Your task to perform on an android device: Search for Mexican restaurants on Maps Image 0: 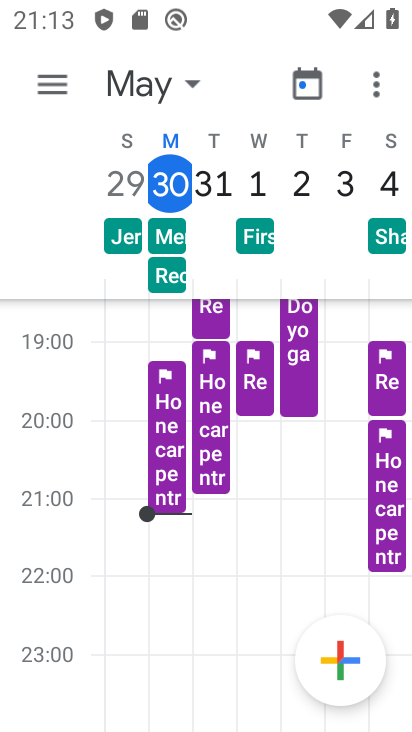
Step 0: press back button
Your task to perform on an android device: Search for Mexican restaurants on Maps Image 1: 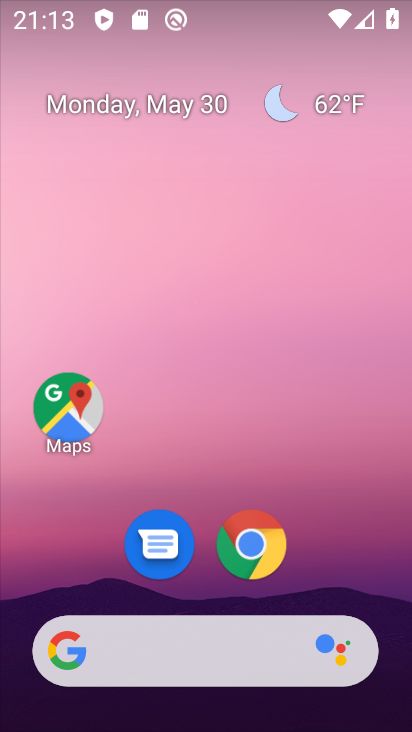
Step 1: click (67, 410)
Your task to perform on an android device: Search for Mexican restaurants on Maps Image 2: 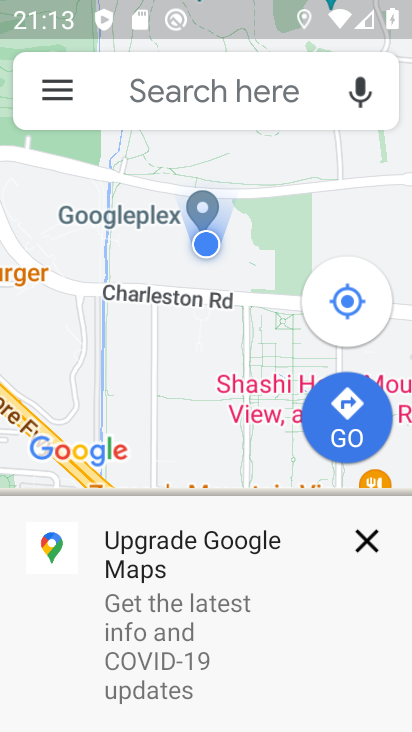
Step 2: click (208, 78)
Your task to perform on an android device: Search for Mexican restaurants on Maps Image 3: 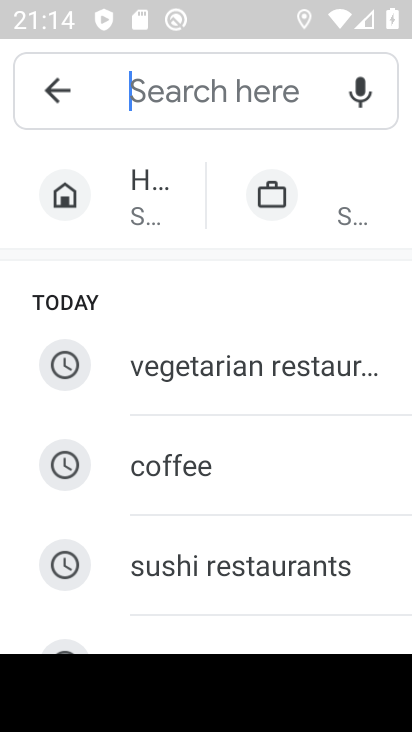
Step 3: type "Mexican restaurants"
Your task to perform on an android device: Search for Mexican restaurants on Maps Image 4: 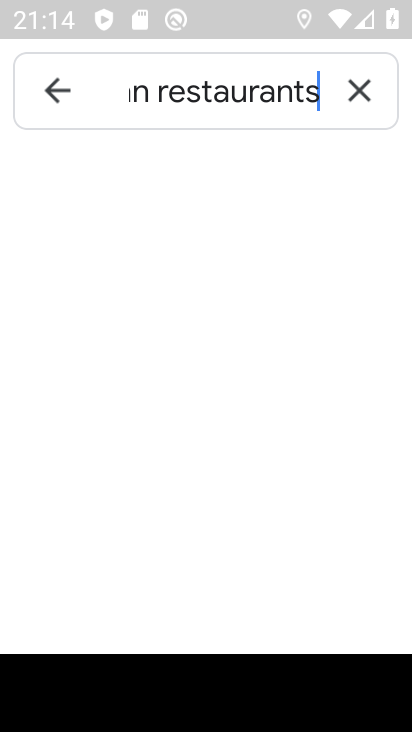
Step 4: type ""
Your task to perform on an android device: Search for Mexican restaurants on Maps Image 5: 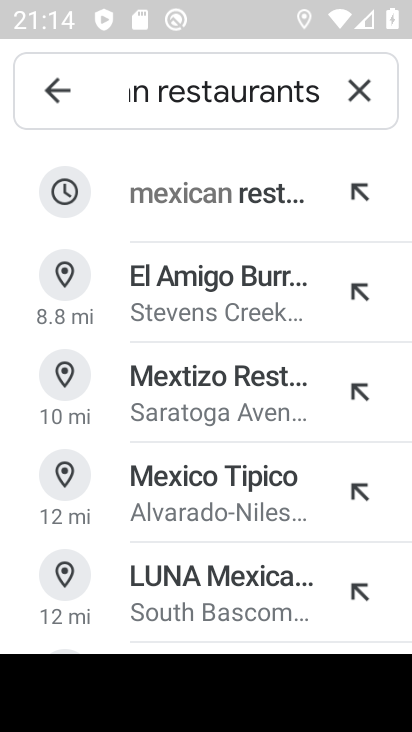
Step 5: click (221, 205)
Your task to perform on an android device: Search for Mexican restaurants on Maps Image 6: 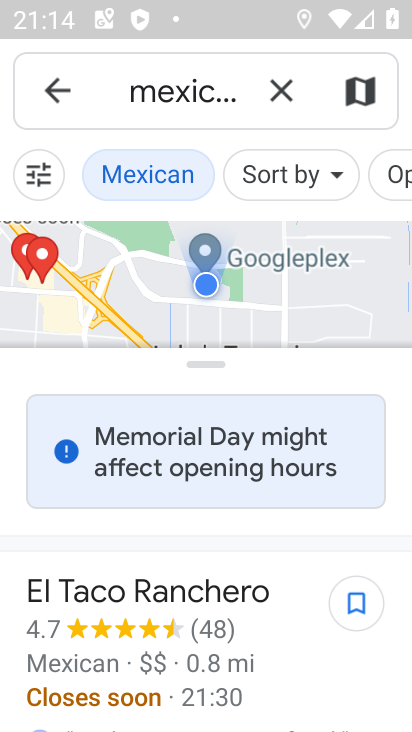
Step 6: task complete